Your task to perform on an android device: turn on location history Image 0: 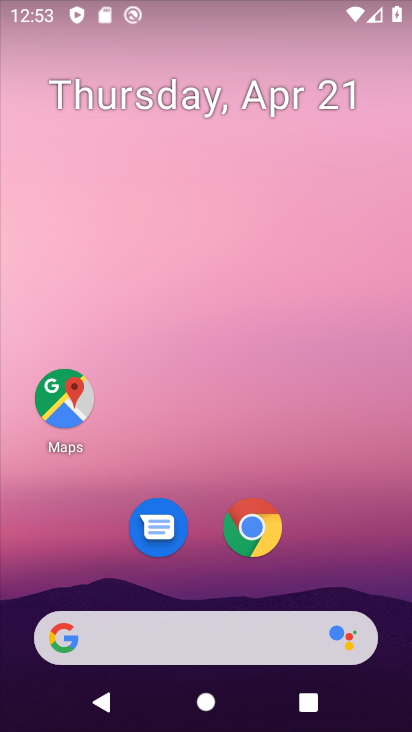
Step 0: drag from (343, 533) to (359, 119)
Your task to perform on an android device: turn on location history Image 1: 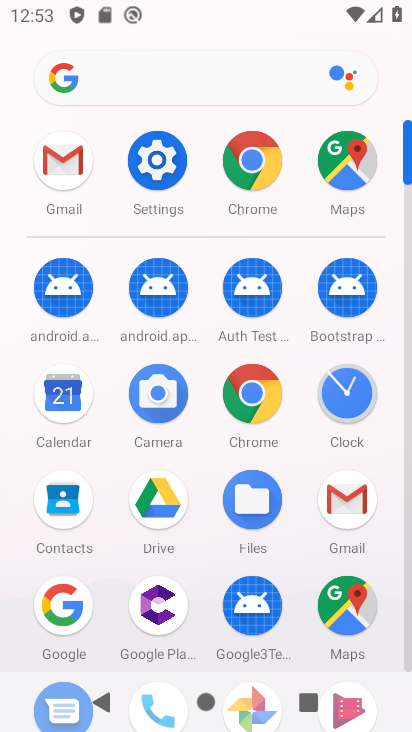
Step 1: click (160, 167)
Your task to perform on an android device: turn on location history Image 2: 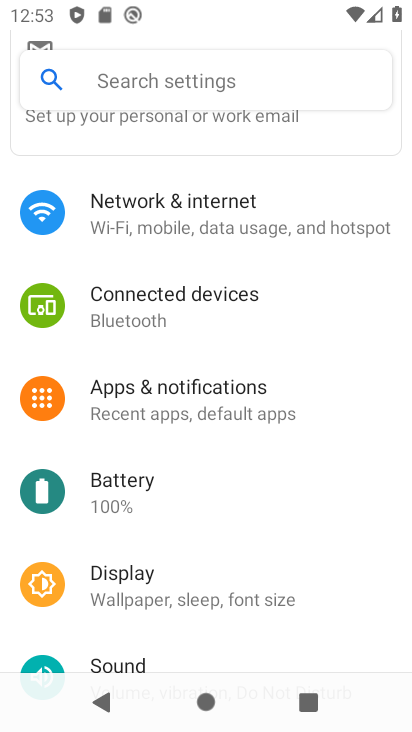
Step 2: drag from (353, 539) to (358, 410)
Your task to perform on an android device: turn on location history Image 3: 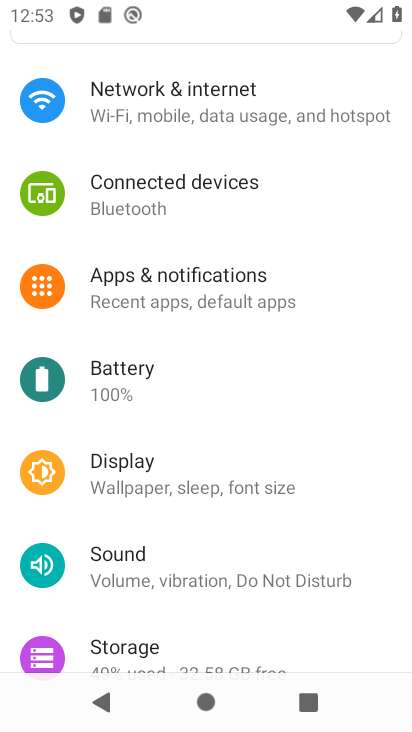
Step 3: drag from (370, 586) to (367, 424)
Your task to perform on an android device: turn on location history Image 4: 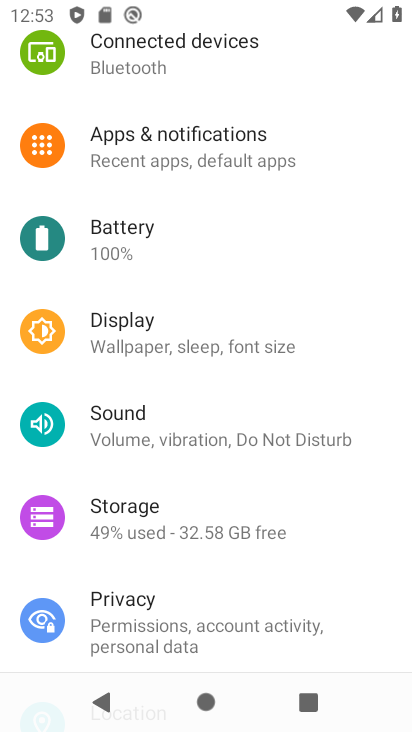
Step 4: drag from (363, 560) to (370, 446)
Your task to perform on an android device: turn on location history Image 5: 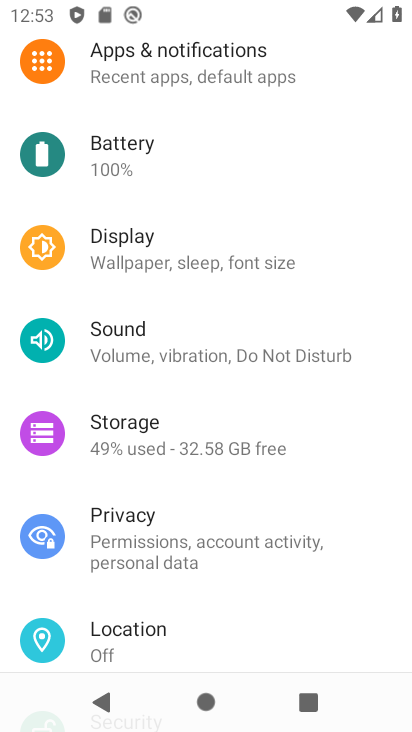
Step 5: drag from (370, 601) to (371, 473)
Your task to perform on an android device: turn on location history Image 6: 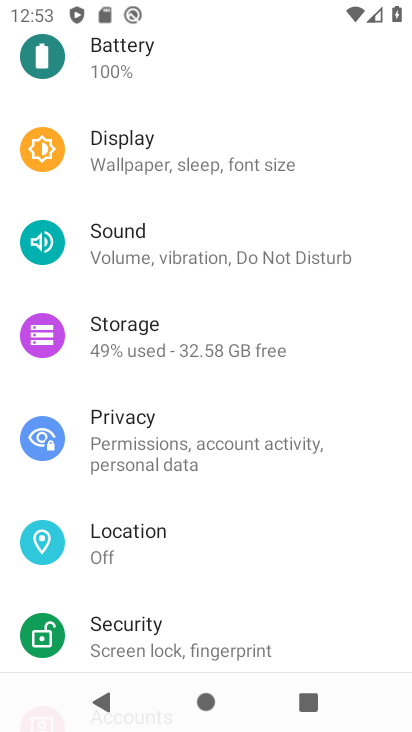
Step 6: drag from (336, 584) to (350, 480)
Your task to perform on an android device: turn on location history Image 7: 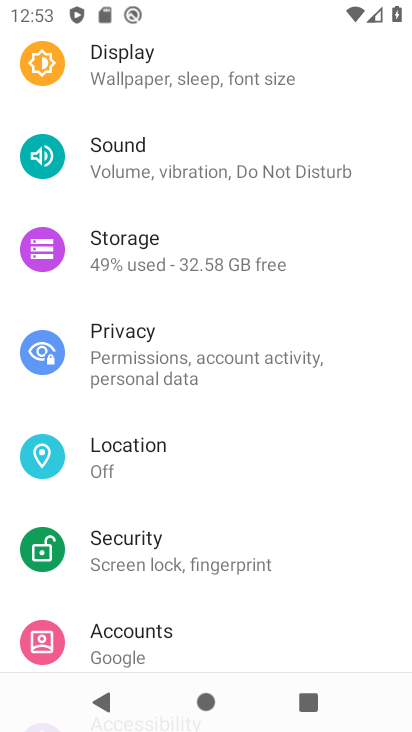
Step 7: drag from (355, 598) to (367, 478)
Your task to perform on an android device: turn on location history Image 8: 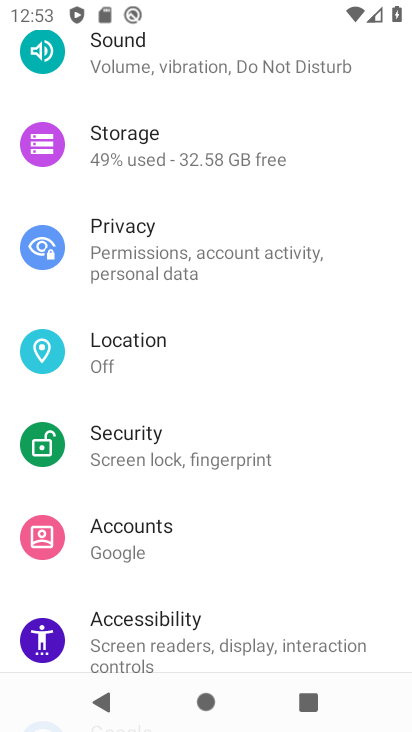
Step 8: click (142, 344)
Your task to perform on an android device: turn on location history Image 9: 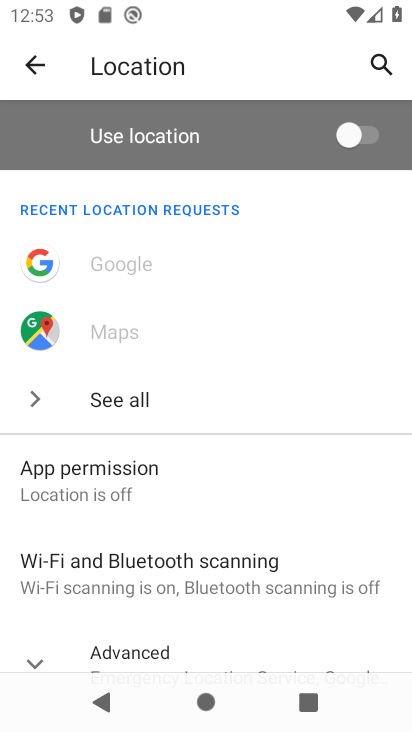
Step 9: drag from (335, 597) to (345, 416)
Your task to perform on an android device: turn on location history Image 10: 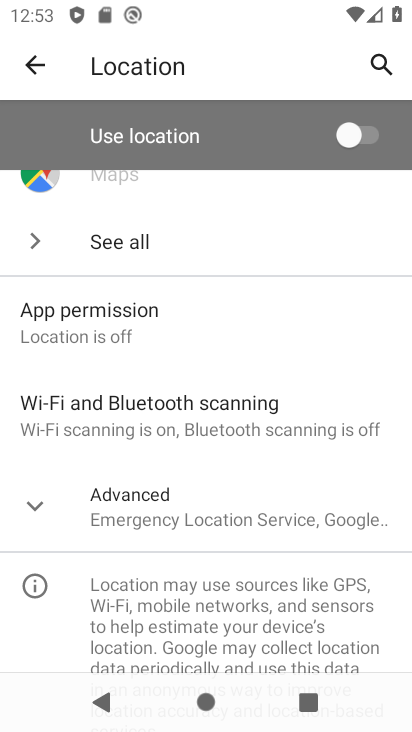
Step 10: click (328, 525)
Your task to perform on an android device: turn on location history Image 11: 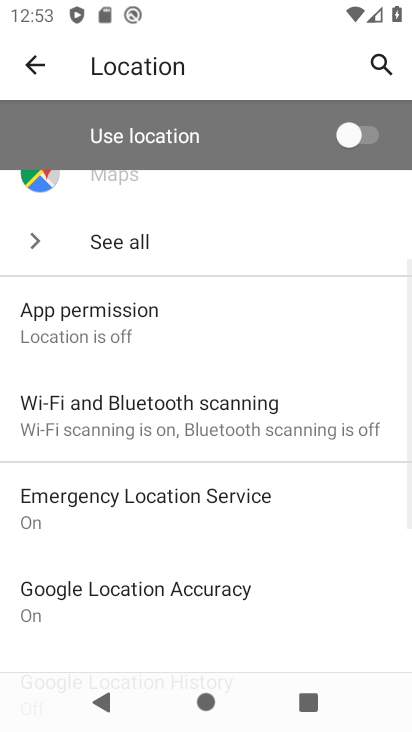
Step 11: drag from (328, 605) to (341, 453)
Your task to perform on an android device: turn on location history Image 12: 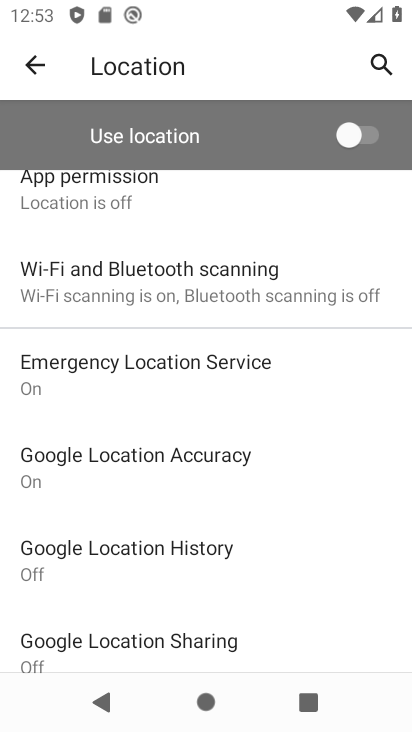
Step 12: drag from (328, 602) to (333, 480)
Your task to perform on an android device: turn on location history Image 13: 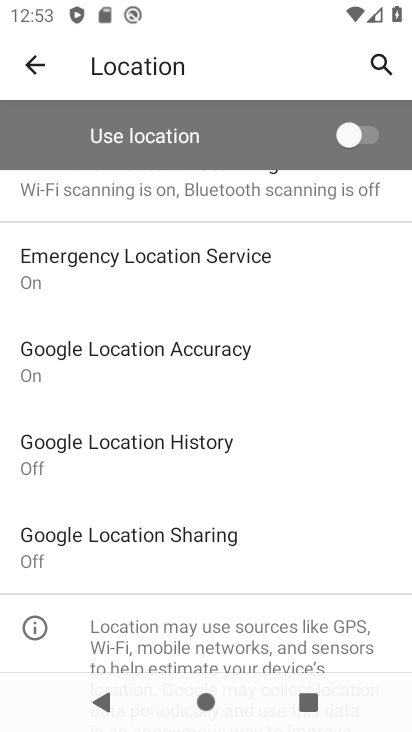
Step 13: click (220, 445)
Your task to perform on an android device: turn on location history Image 14: 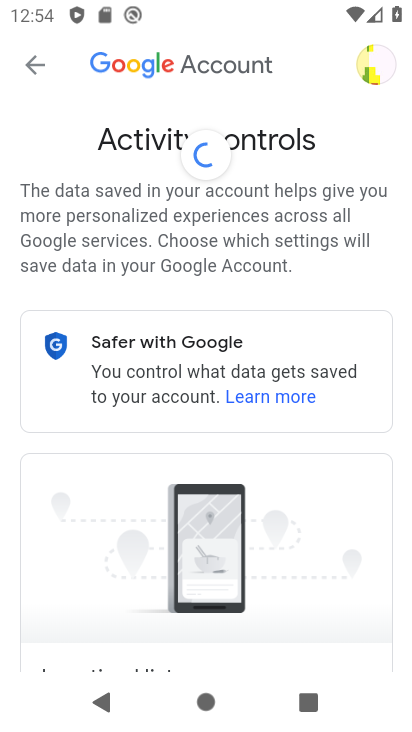
Step 14: drag from (295, 560) to (313, 366)
Your task to perform on an android device: turn on location history Image 15: 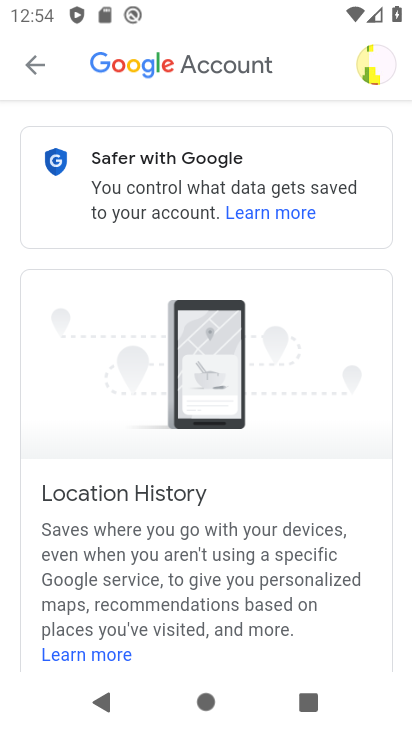
Step 15: drag from (289, 550) to (288, 342)
Your task to perform on an android device: turn on location history Image 16: 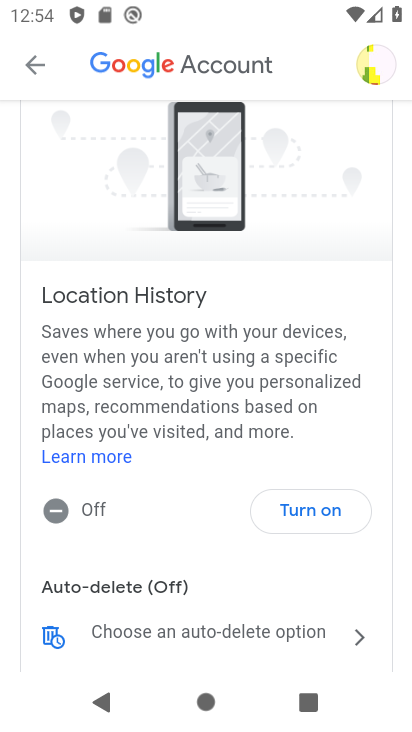
Step 16: click (312, 504)
Your task to perform on an android device: turn on location history Image 17: 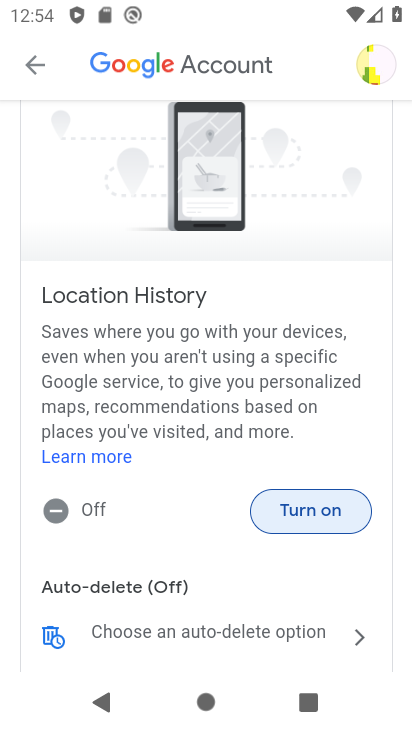
Step 17: click (323, 514)
Your task to perform on an android device: turn on location history Image 18: 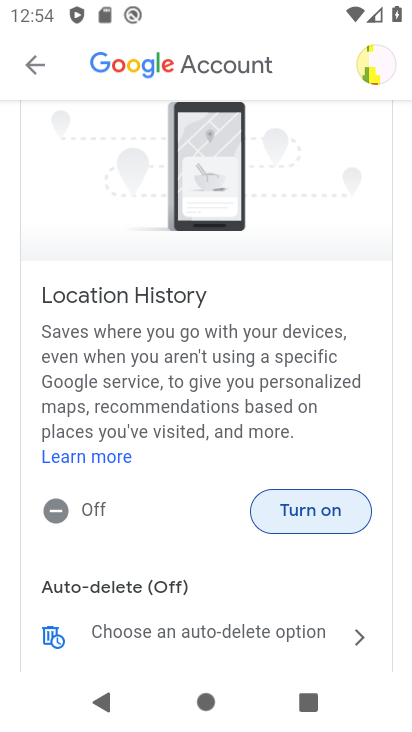
Step 18: click (306, 504)
Your task to perform on an android device: turn on location history Image 19: 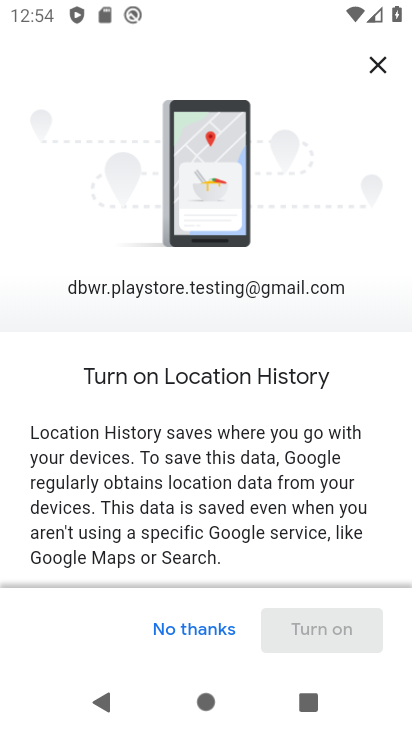
Step 19: drag from (260, 509) to (258, 315)
Your task to perform on an android device: turn on location history Image 20: 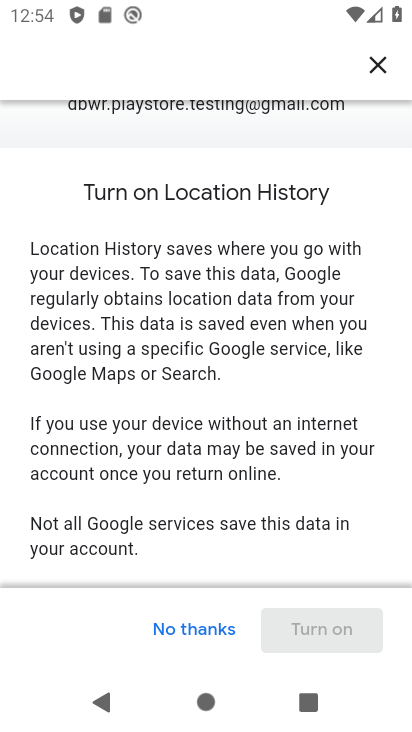
Step 20: drag from (264, 474) to (275, 294)
Your task to perform on an android device: turn on location history Image 21: 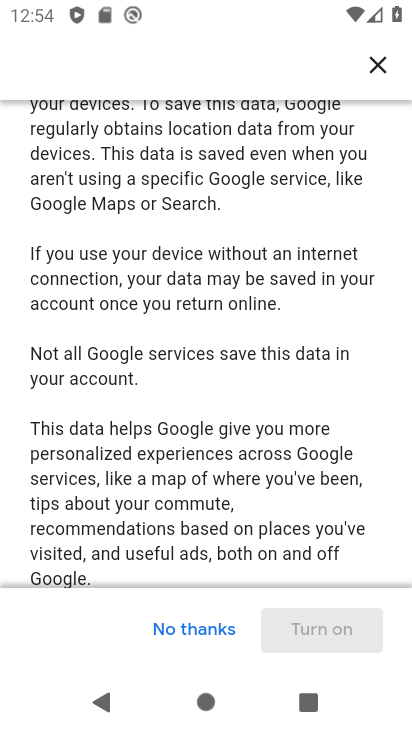
Step 21: drag from (279, 504) to (296, 345)
Your task to perform on an android device: turn on location history Image 22: 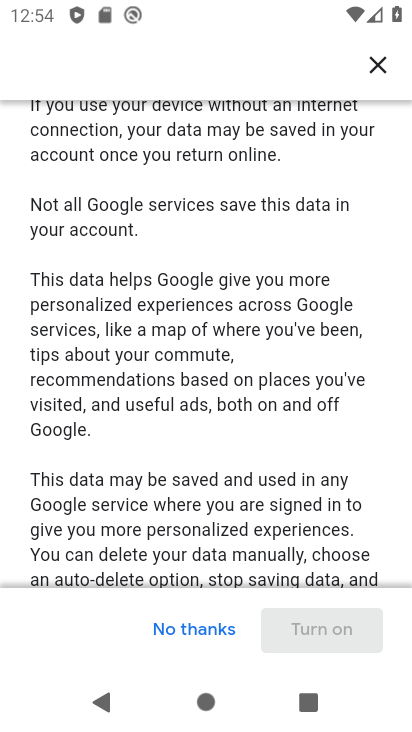
Step 22: drag from (239, 550) to (253, 377)
Your task to perform on an android device: turn on location history Image 23: 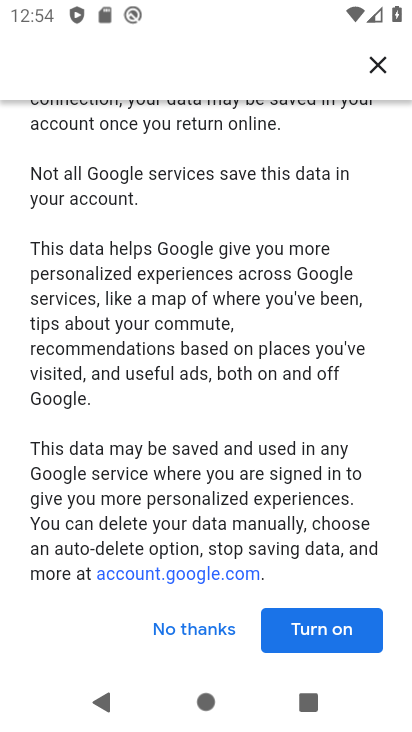
Step 23: click (316, 634)
Your task to perform on an android device: turn on location history Image 24: 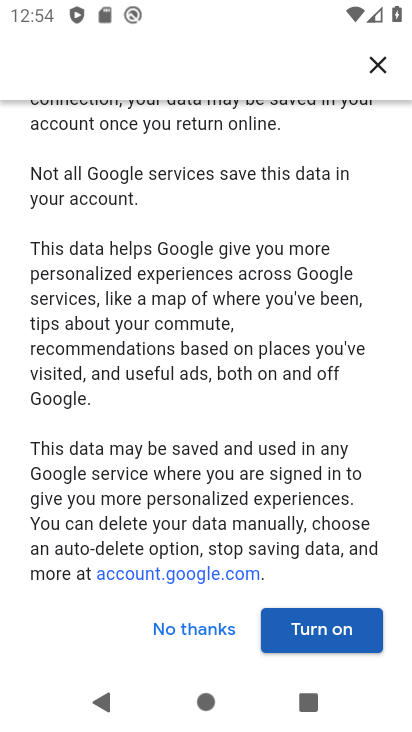
Step 24: click (327, 633)
Your task to perform on an android device: turn on location history Image 25: 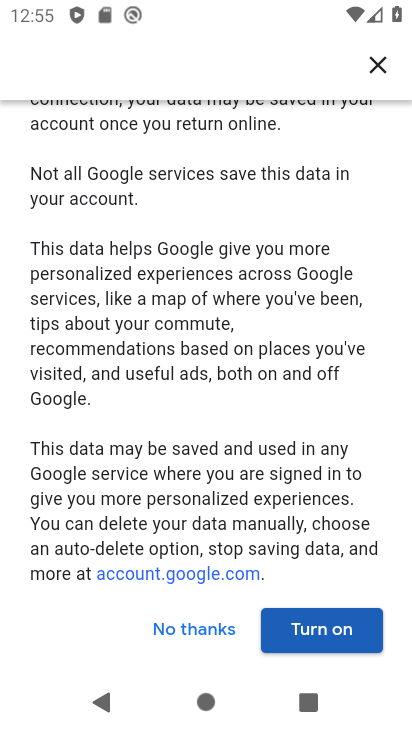
Step 25: click (337, 626)
Your task to perform on an android device: turn on location history Image 26: 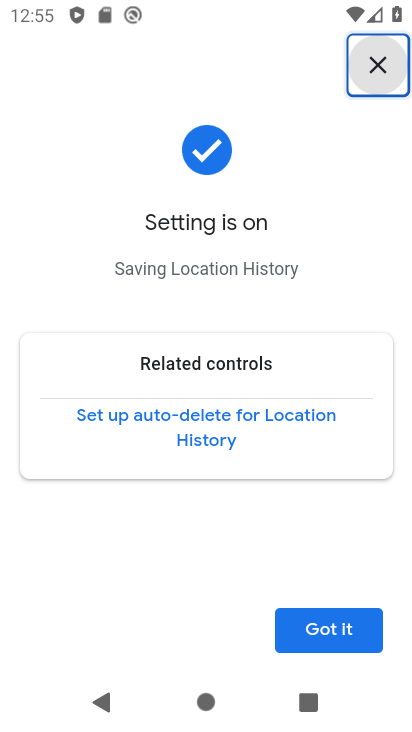
Step 26: task complete